Your task to perform on an android device: see creations saved in the google photos Image 0: 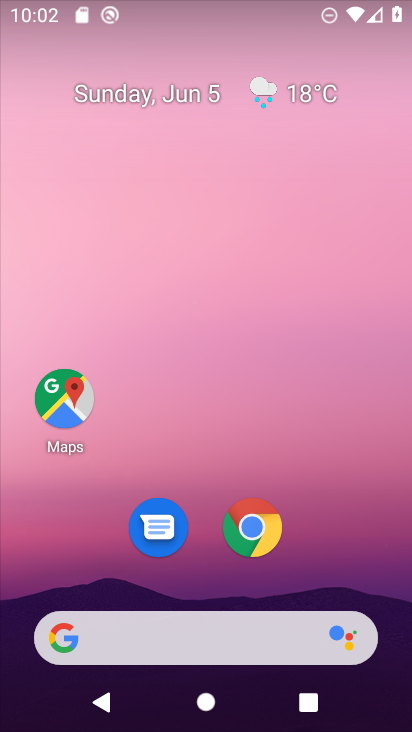
Step 0: drag from (190, 415) to (262, 50)
Your task to perform on an android device: see creations saved in the google photos Image 1: 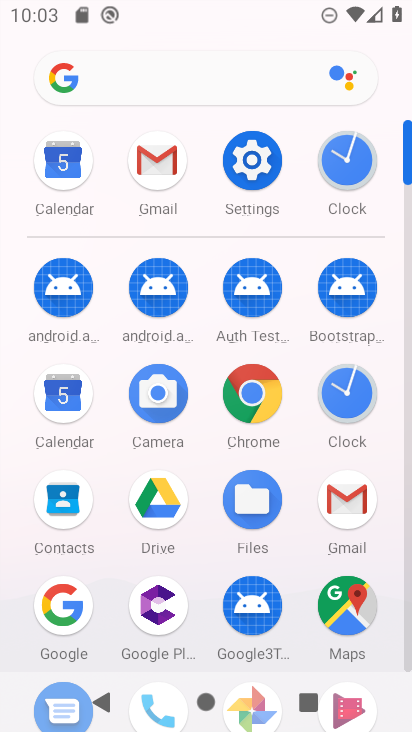
Step 1: drag from (253, 623) to (283, 57)
Your task to perform on an android device: see creations saved in the google photos Image 2: 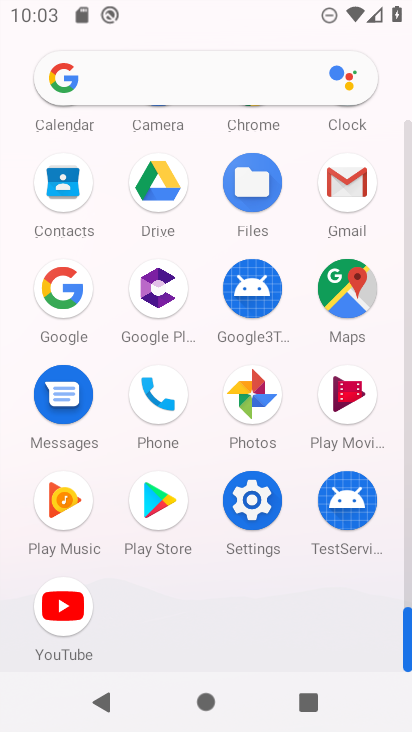
Step 2: click (256, 391)
Your task to perform on an android device: see creations saved in the google photos Image 3: 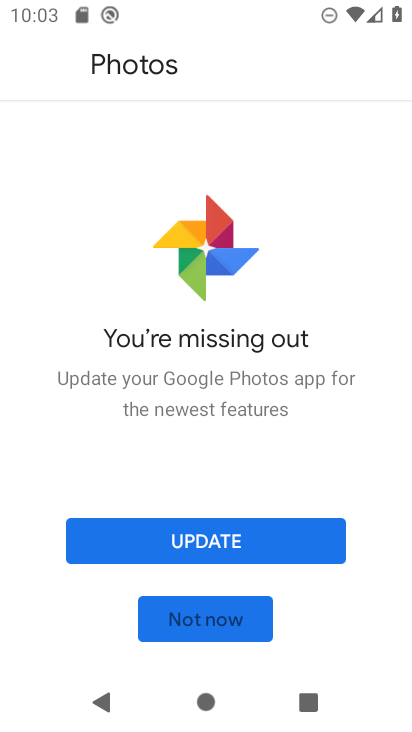
Step 3: click (151, 613)
Your task to perform on an android device: see creations saved in the google photos Image 4: 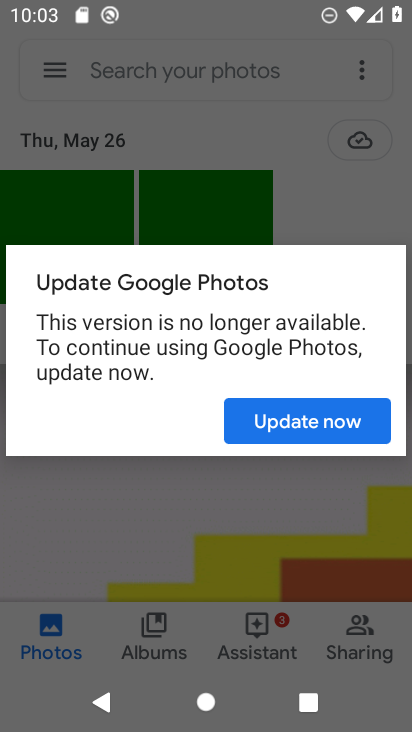
Step 4: click (342, 410)
Your task to perform on an android device: see creations saved in the google photos Image 5: 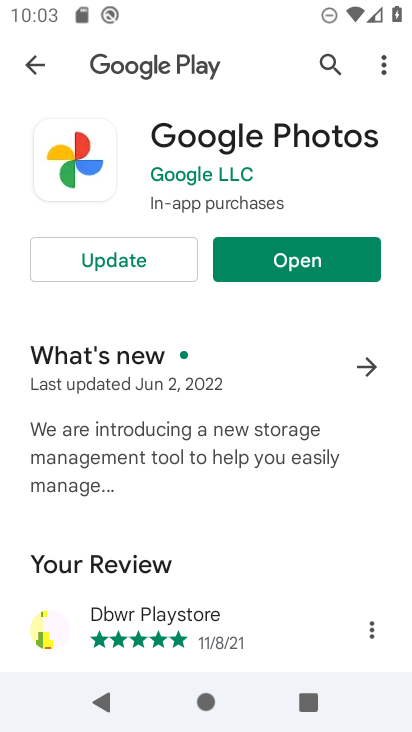
Step 5: click (227, 256)
Your task to perform on an android device: see creations saved in the google photos Image 6: 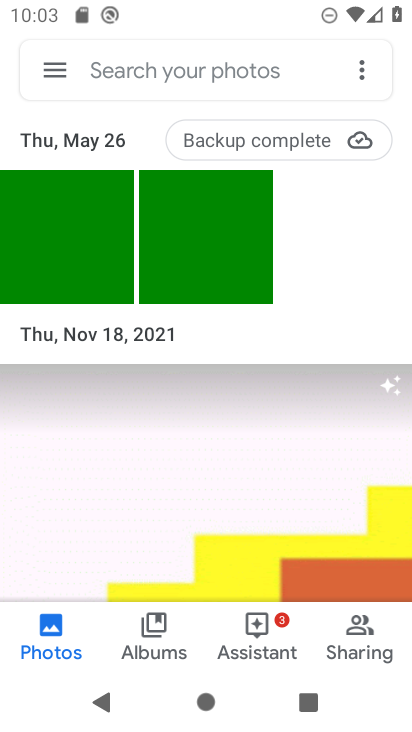
Step 6: click (36, 66)
Your task to perform on an android device: see creations saved in the google photos Image 7: 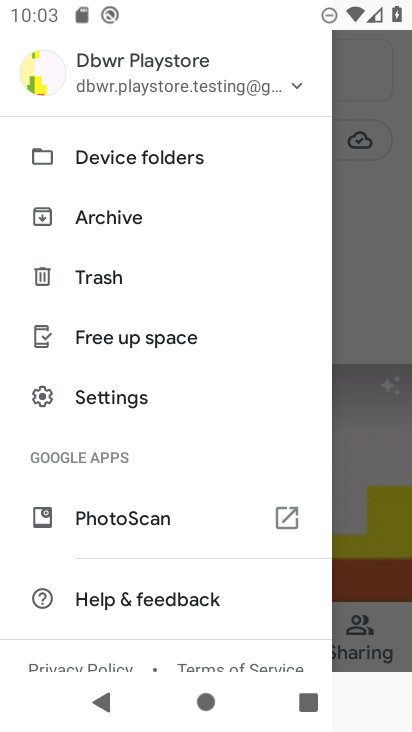
Step 7: click (141, 212)
Your task to perform on an android device: see creations saved in the google photos Image 8: 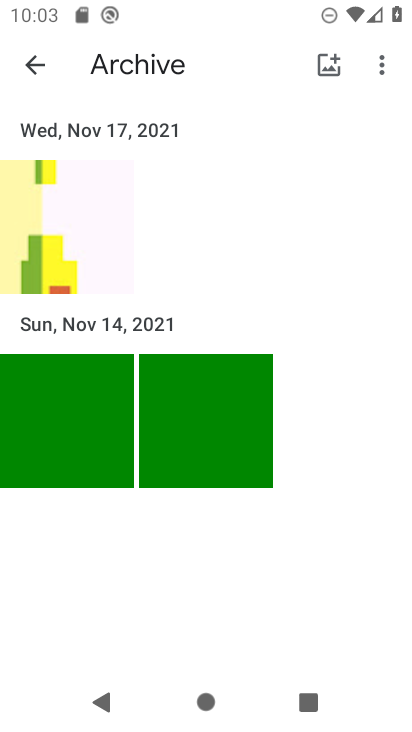
Step 8: task complete